Your task to perform on an android device: turn on notifications settings in the gmail app Image 0: 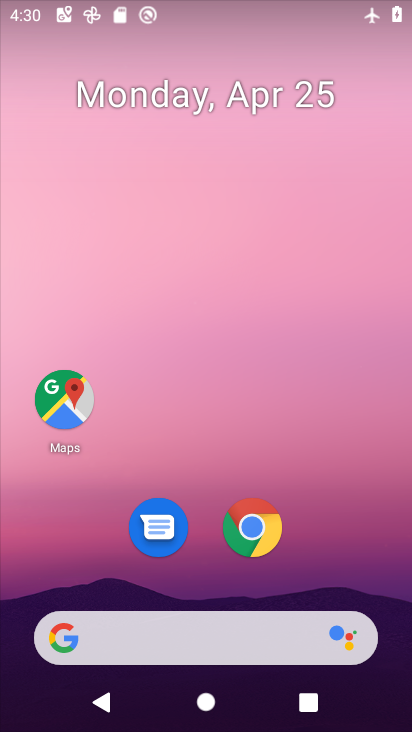
Step 0: drag from (386, 606) to (362, 48)
Your task to perform on an android device: turn on notifications settings in the gmail app Image 1: 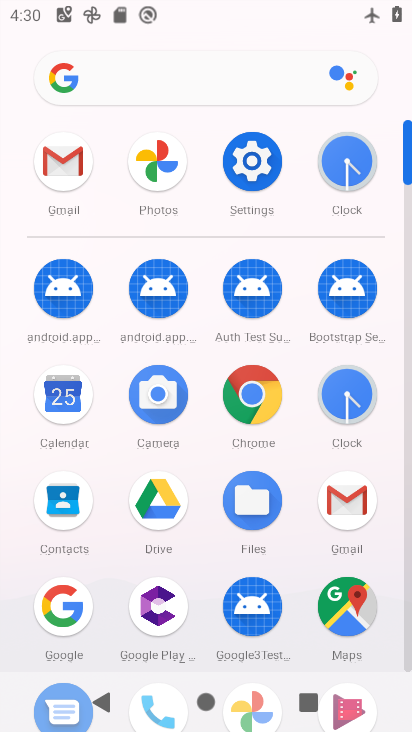
Step 1: click (408, 653)
Your task to perform on an android device: turn on notifications settings in the gmail app Image 2: 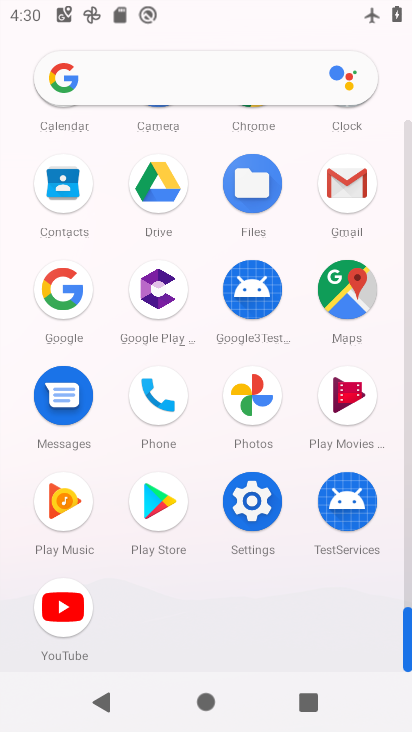
Step 2: click (340, 180)
Your task to perform on an android device: turn on notifications settings in the gmail app Image 3: 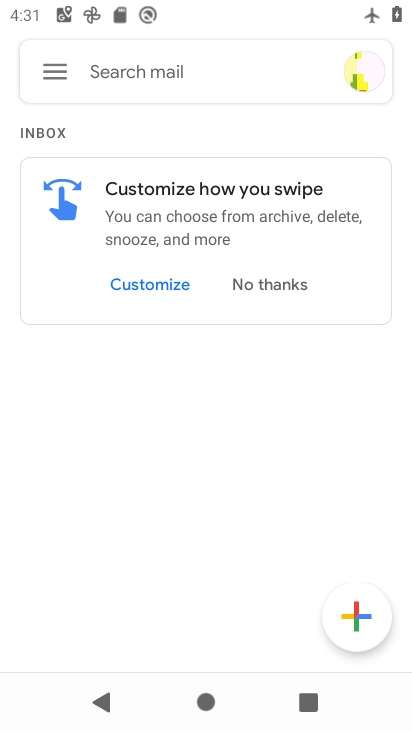
Step 3: click (54, 72)
Your task to perform on an android device: turn on notifications settings in the gmail app Image 4: 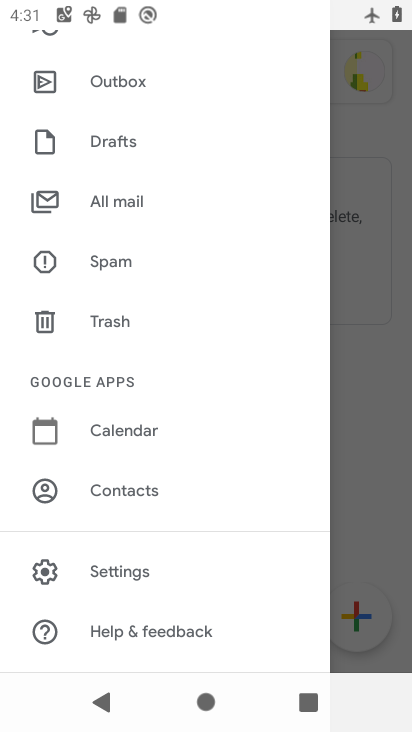
Step 4: click (108, 572)
Your task to perform on an android device: turn on notifications settings in the gmail app Image 5: 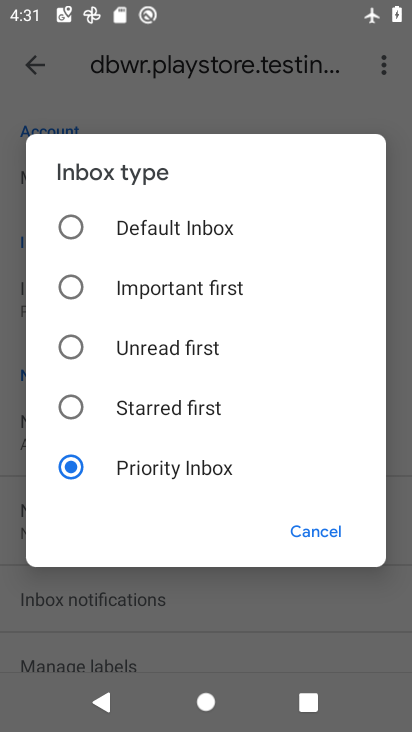
Step 5: click (324, 536)
Your task to perform on an android device: turn on notifications settings in the gmail app Image 6: 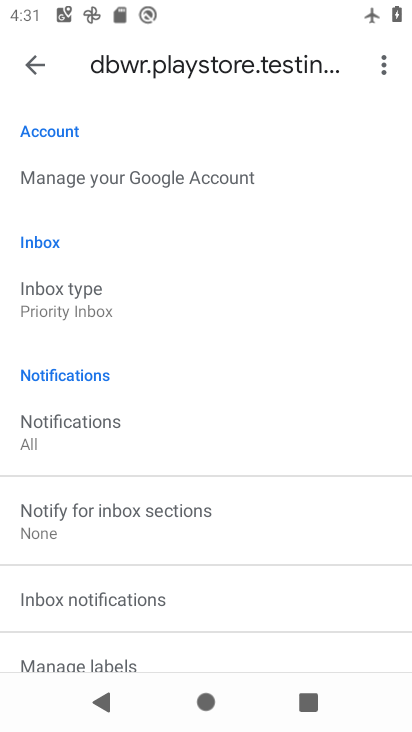
Step 6: drag from (259, 573) to (295, 269)
Your task to perform on an android device: turn on notifications settings in the gmail app Image 7: 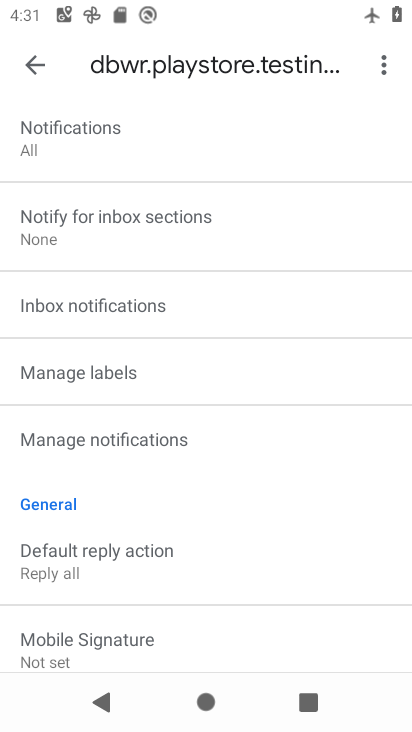
Step 7: click (104, 445)
Your task to perform on an android device: turn on notifications settings in the gmail app Image 8: 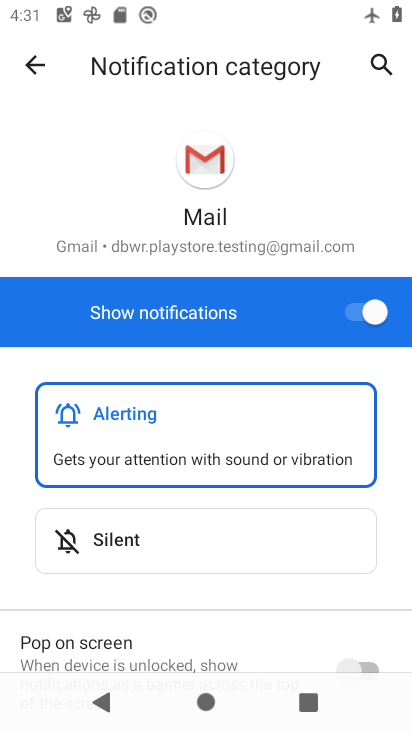
Step 8: task complete